Your task to perform on an android device: find which apps use the phone's location Image 0: 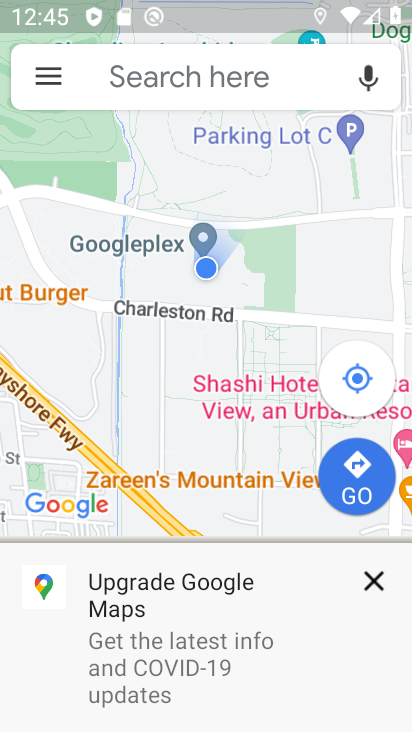
Step 0: press home button
Your task to perform on an android device: find which apps use the phone's location Image 1: 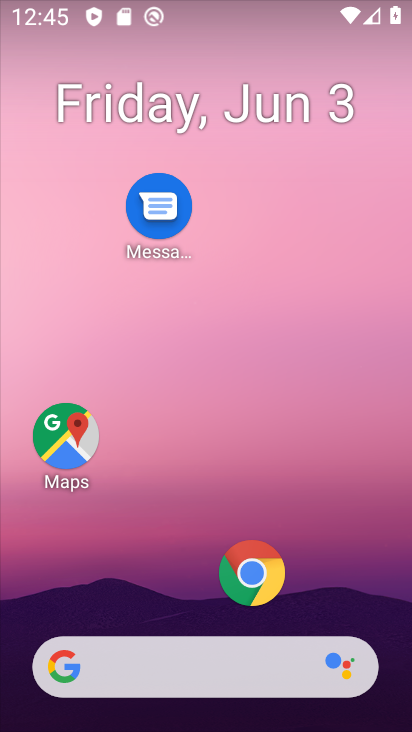
Step 1: drag from (170, 652) to (267, 152)
Your task to perform on an android device: find which apps use the phone's location Image 2: 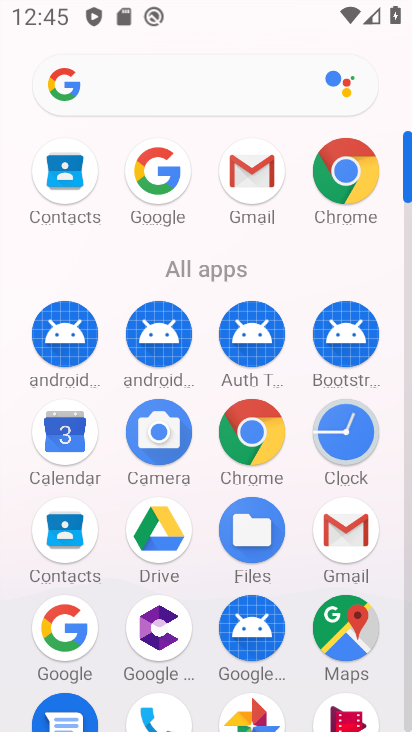
Step 2: drag from (201, 688) to (151, 247)
Your task to perform on an android device: find which apps use the phone's location Image 3: 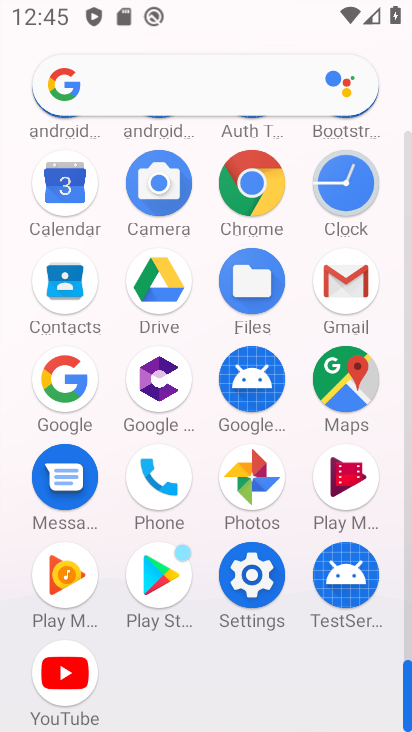
Step 3: click (236, 596)
Your task to perform on an android device: find which apps use the phone's location Image 4: 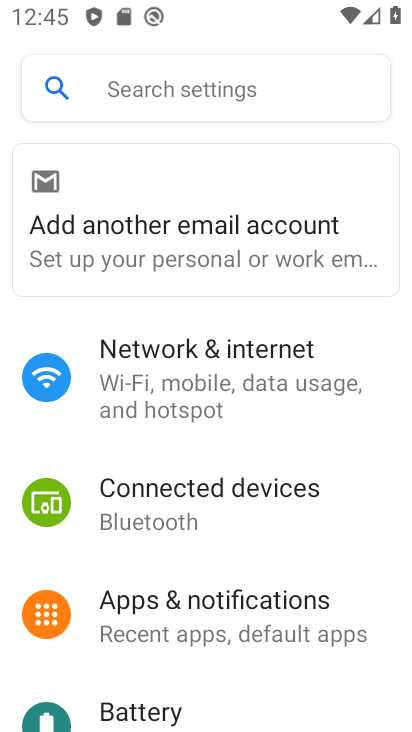
Step 4: drag from (275, 586) to (228, 88)
Your task to perform on an android device: find which apps use the phone's location Image 5: 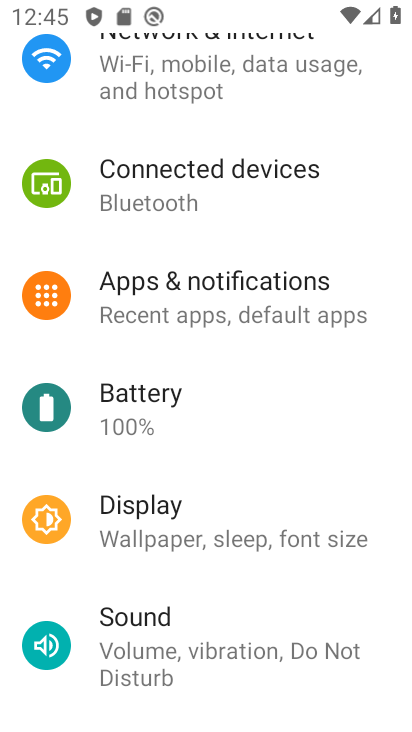
Step 5: drag from (203, 674) to (185, 220)
Your task to perform on an android device: find which apps use the phone's location Image 6: 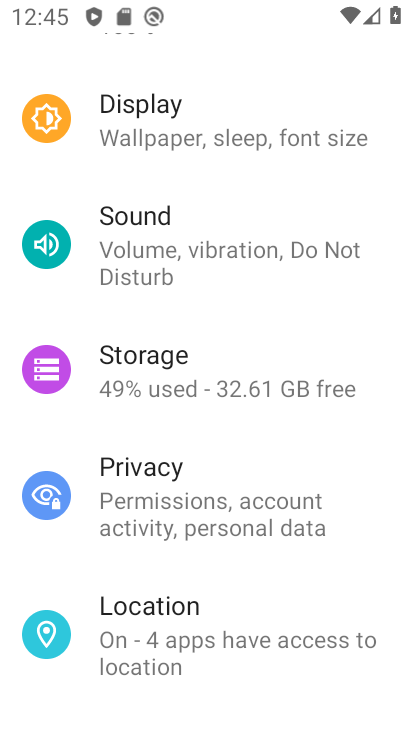
Step 6: click (163, 644)
Your task to perform on an android device: find which apps use the phone's location Image 7: 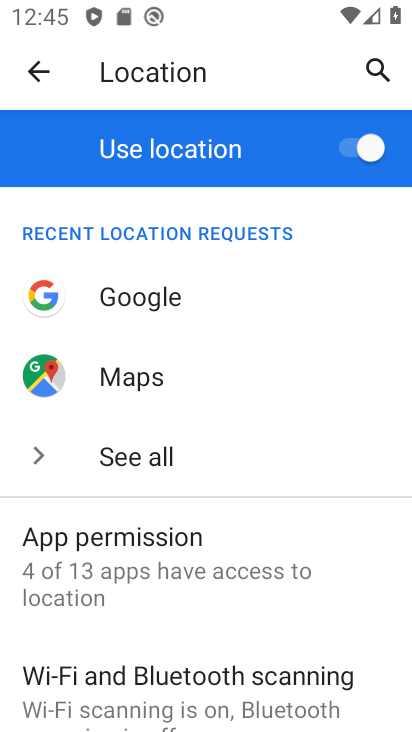
Step 7: click (106, 559)
Your task to perform on an android device: find which apps use the phone's location Image 8: 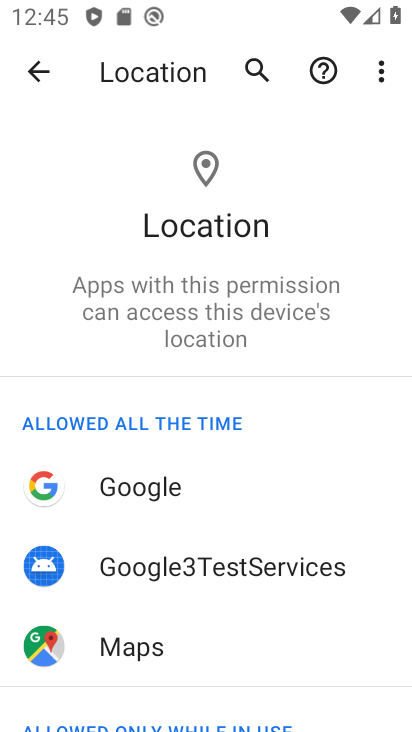
Step 8: task complete